Your task to perform on an android device: Go to accessibility settings Image 0: 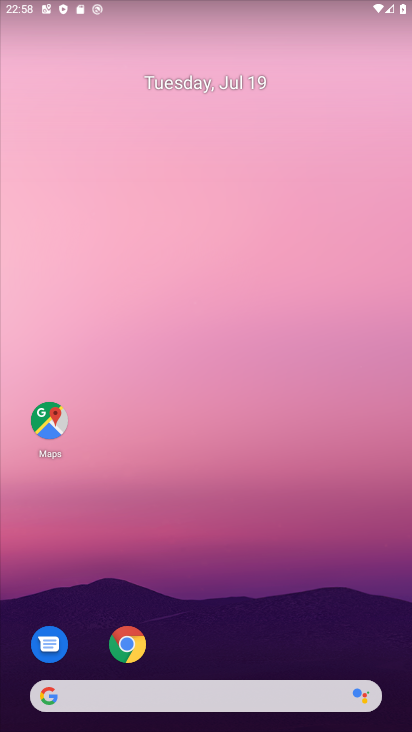
Step 0: drag from (218, 714) to (218, 447)
Your task to perform on an android device: Go to accessibility settings Image 1: 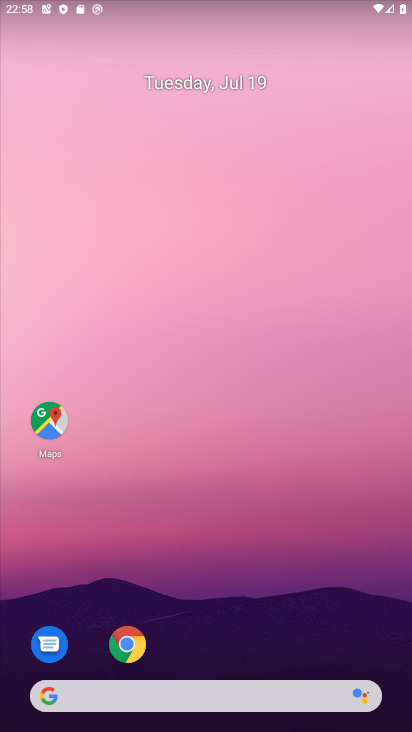
Step 1: drag from (247, 728) to (254, 257)
Your task to perform on an android device: Go to accessibility settings Image 2: 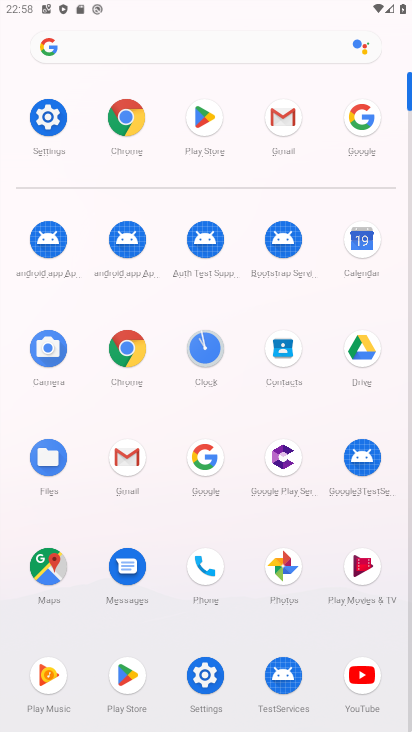
Step 2: click (45, 108)
Your task to perform on an android device: Go to accessibility settings Image 3: 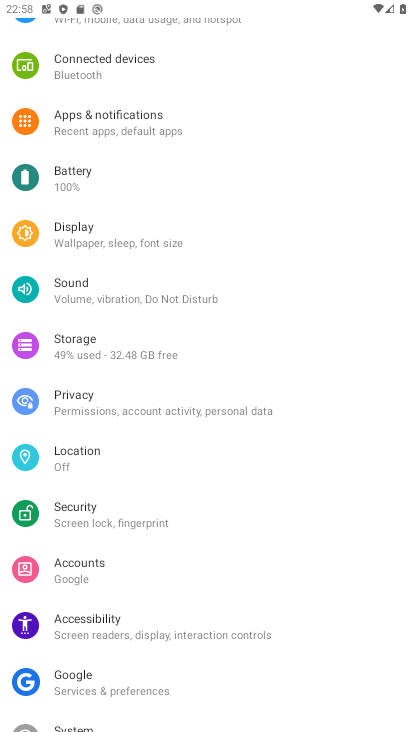
Step 3: click (110, 625)
Your task to perform on an android device: Go to accessibility settings Image 4: 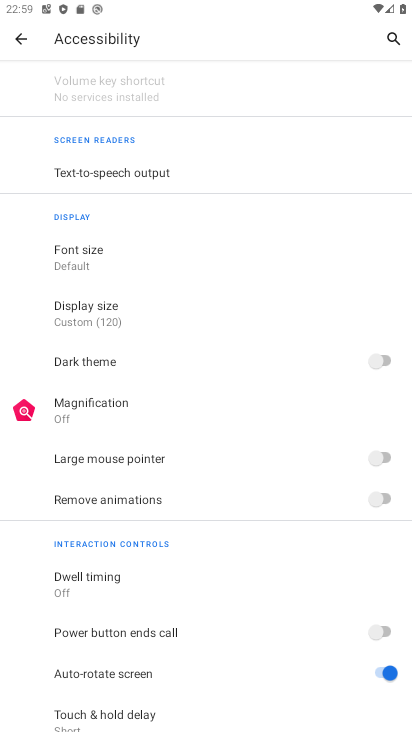
Step 4: task complete